Your task to perform on an android device: Do I have any events this weekend? Image 0: 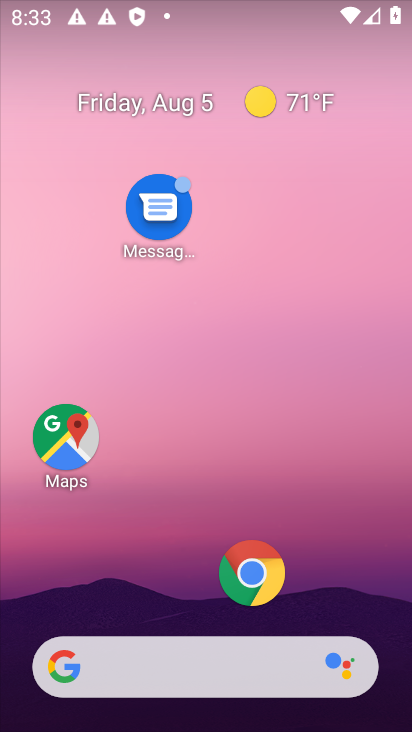
Step 0: press home button
Your task to perform on an android device: Do I have any events this weekend? Image 1: 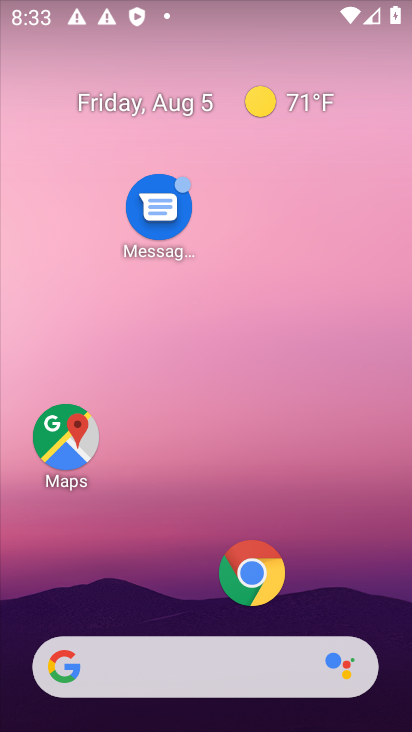
Step 1: drag from (184, 605) to (280, 152)
Your task to perform on an android device: Do I have any events this weekend? Image 2: 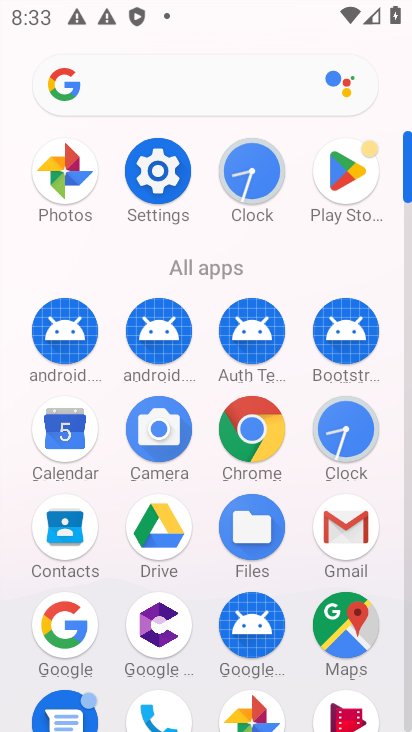
Step 2: click (68, 421)
Your task to perform on an android device: Do I have any events this weekend? Image 3: 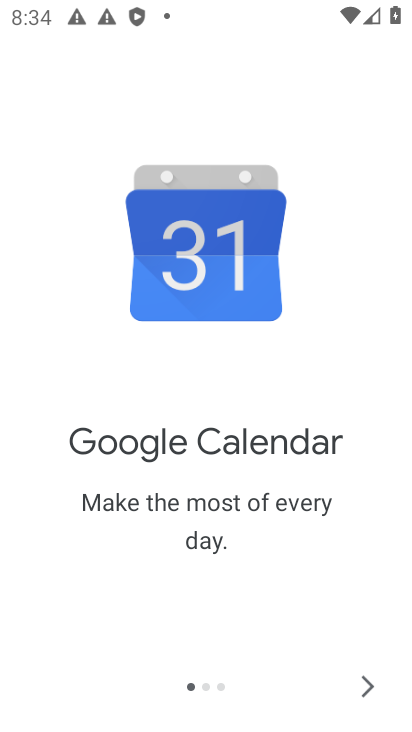
Step 3: click (351, 680)
Your task to perform on an android device: Do I have any events this weekend? Image 4: 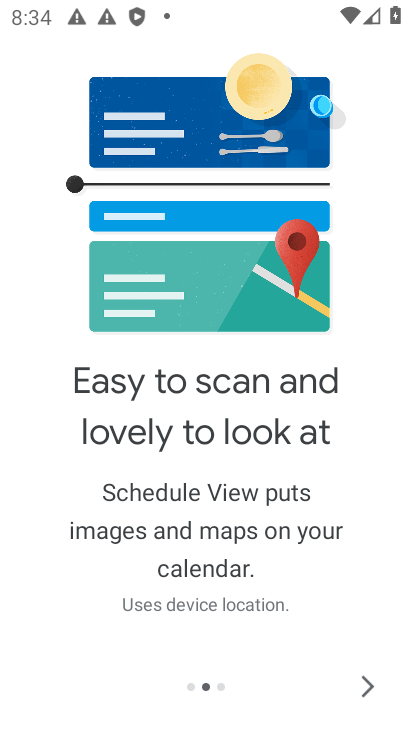
Step 4: click (357, 681)
Your task to perform on an android device: Do I have any events this weekend? Image 5: 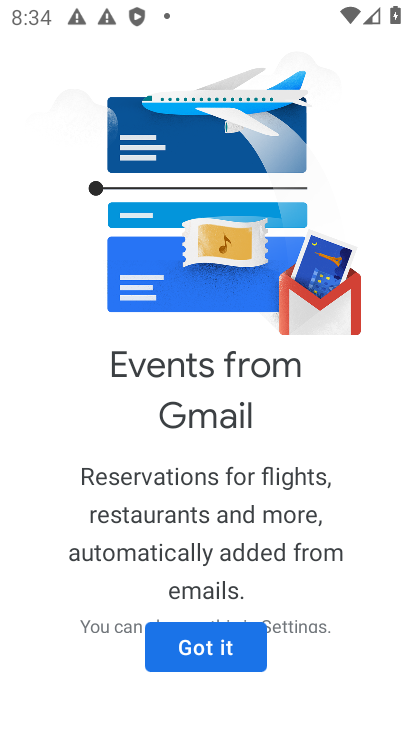
Step 5: click (214, 650)
Your task to perform on an android device: Do I have any events this weekend? Image 6: 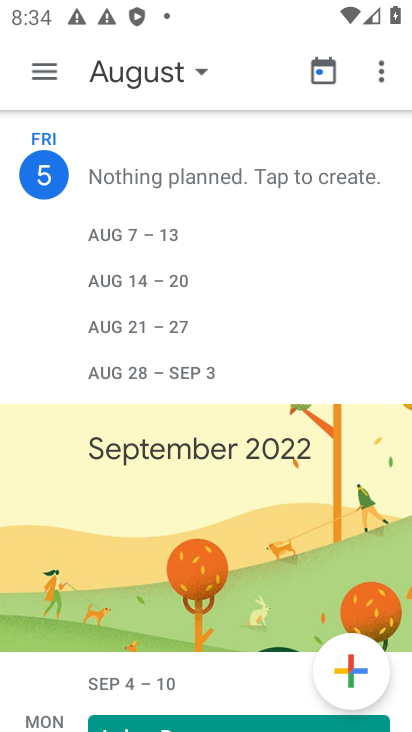
Step 6: click (49, 66)
Your task to perform on an android device: Do I have any events this weekend? Image 7: 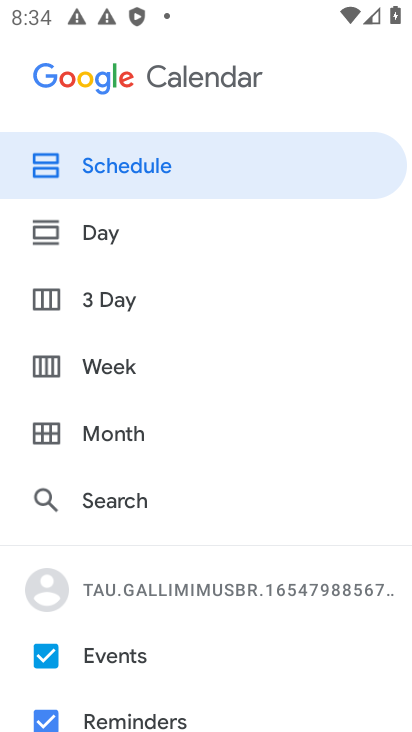
Step 7: drag from (178, 666) to (213, 292)
Your task to perform on an android device: Do I have any events this weekend? Image 8: 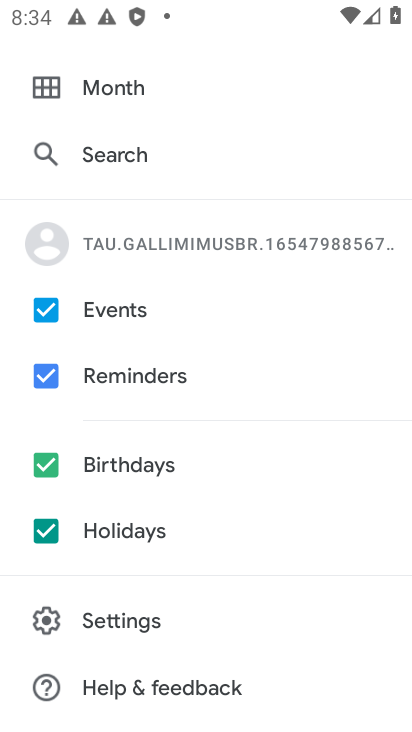
Step 8: click (50, 526)
Your task to perform on an android device: Do I have any events this weekend? Image 9: 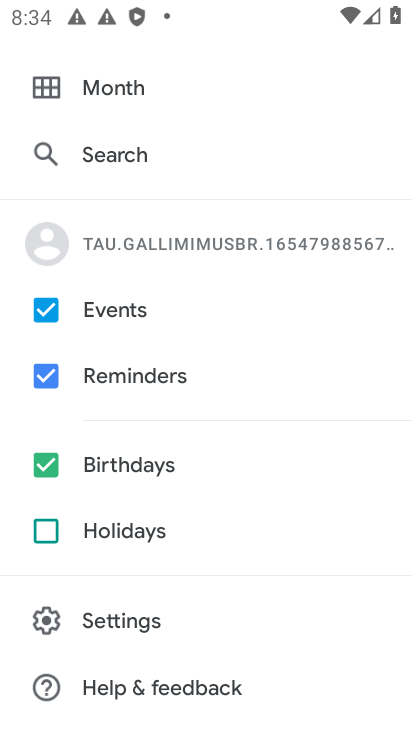
Step 9: click (39, 455)
Your task to perform on an android device: Do I have any events this weekend? Image 10: 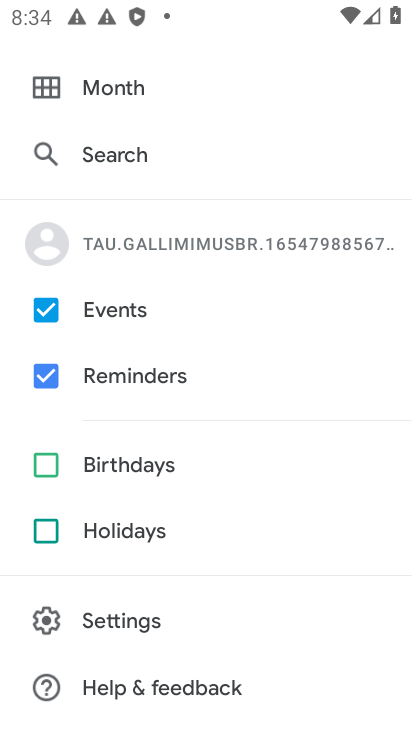
Step 10: click (43, 365)
Your task to perform on an android device: Do I have any events this weekend? Image 11: 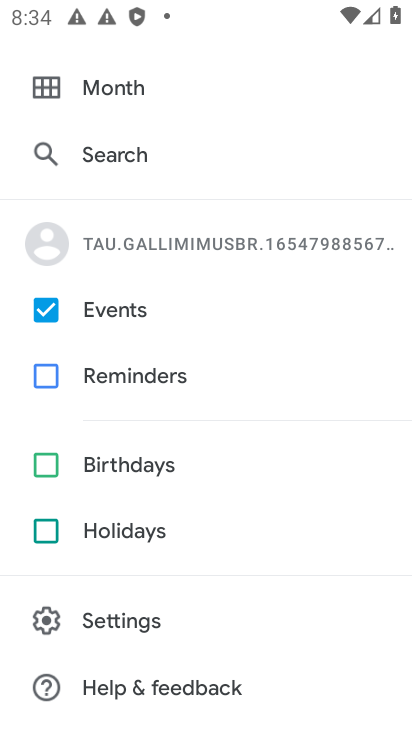
Step 11: drag from (168, 206) to (182, 551)
Your task to perform on an android device: Do I have any events this weekend? Image 12: 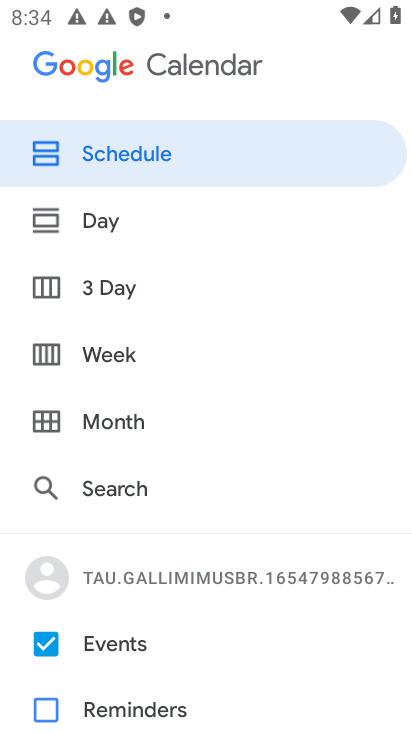
Step 12: click (69, 351)
Your task to perform on an android device: Do I have any events this weekend? Image 13: 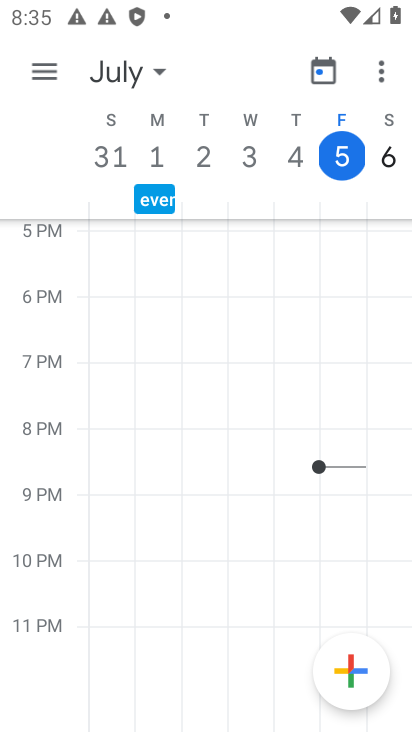
Step 13: click (375, 155)
Your task to perform on an android device: Do I have any events this weekend? Image 14: 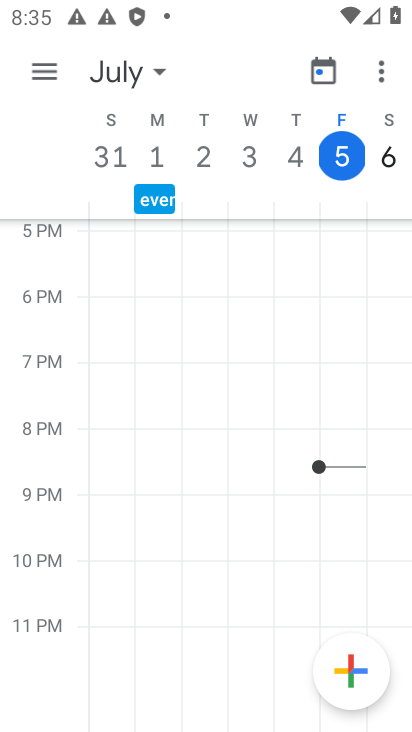
Step 14: click (383, 153)
Your task to perform on an android device: Do I have any events this weekend? Image 15: 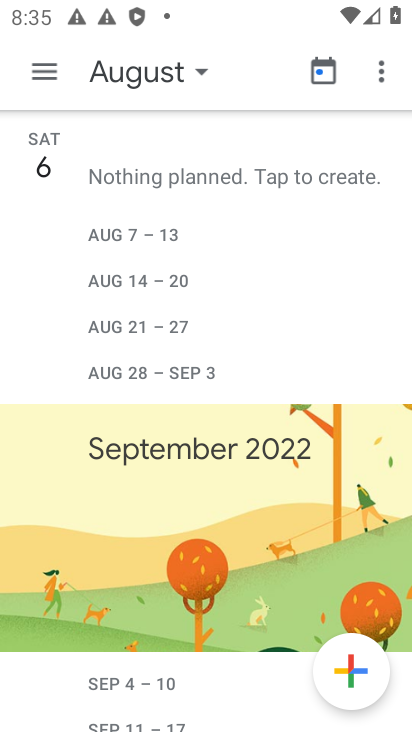
Step 15: task complete